Your task to perform on an android device: What's the news in Chile? Image 0: 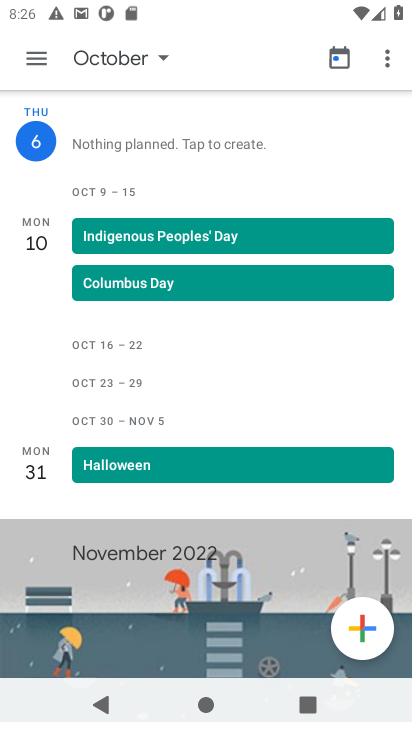
Step 0: press home button
Your task to perform on an android device: What's the news in Chile? Image 1: 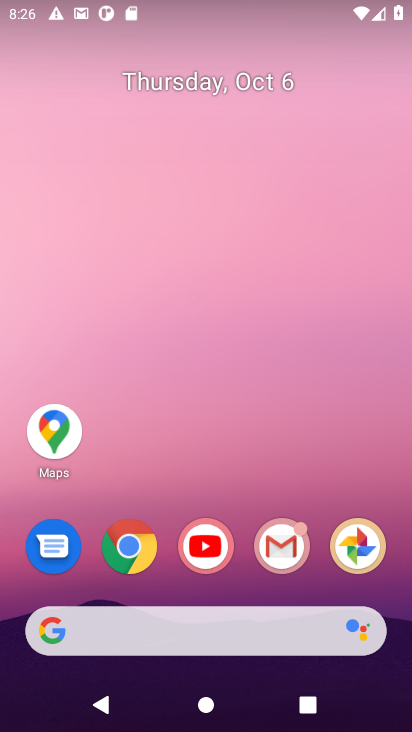
Step 1: click (123, 549)
Your task to perform on an android device: What's the news in Chile? Image 2: 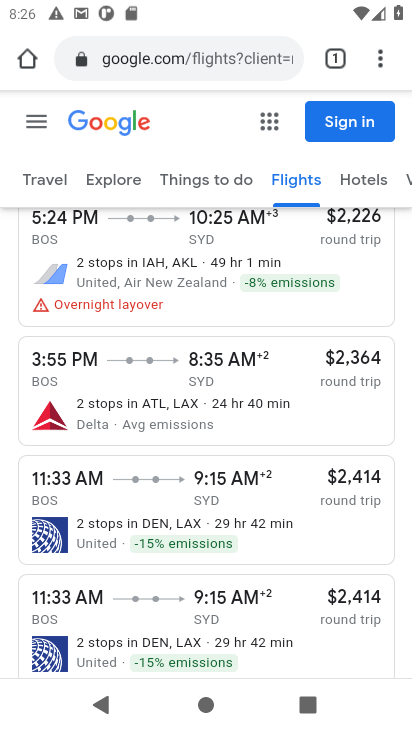
Step 2: click (187, 36)
Your task to perform on an android device: What's the news in Chile? Image 3: 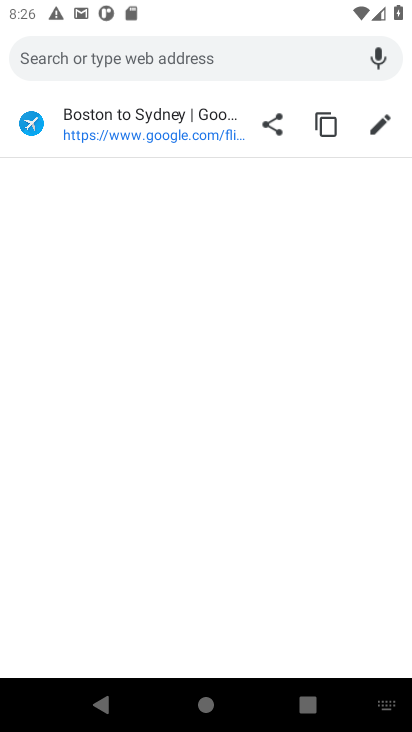
Step 3: type "What's the news in Chile?"
Your task to perform on an android device: What's the news in Chile? Image 4: 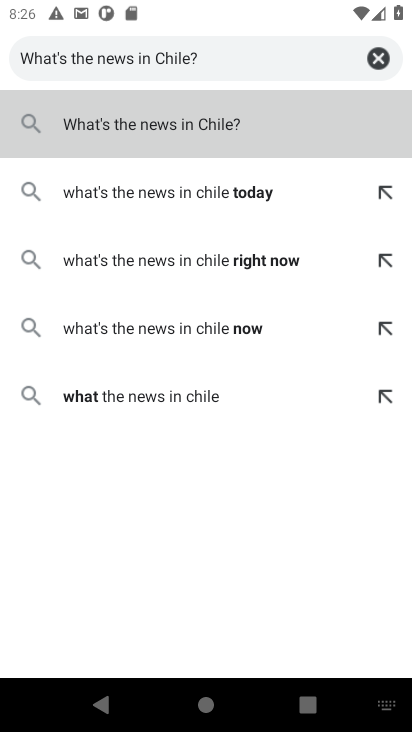
Step 4: click (119, 114)
Your task to perform on an android device: What's the news in Chile? Image 5: 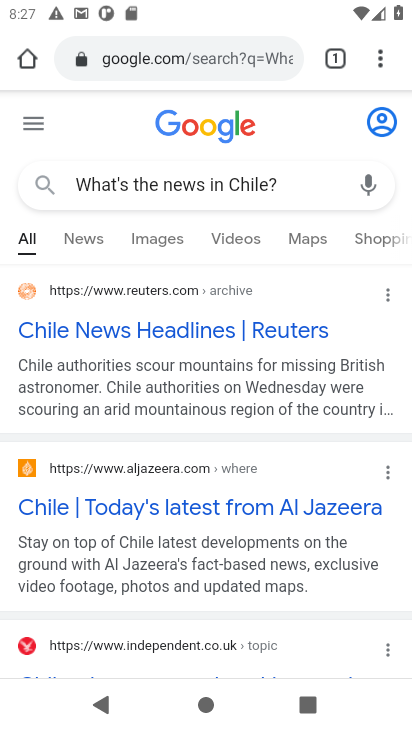
Step 5: click (79, 338)
Your task to perform on an android device: What's the news in Chile? Image 6: 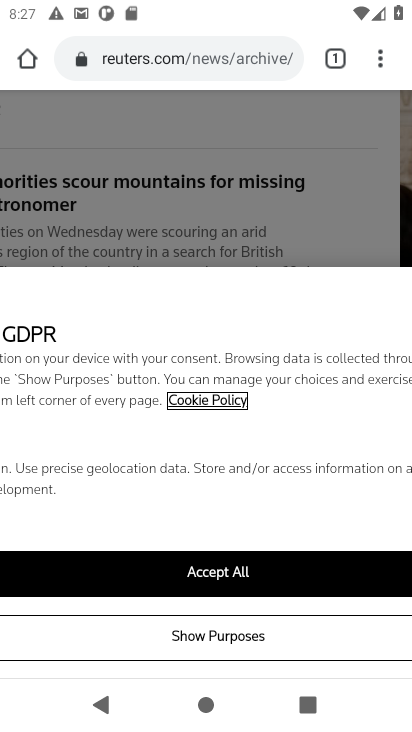
Step 6: click (207, 571)
Your task to perform on an android device: What's the news in Chile? Image 7: 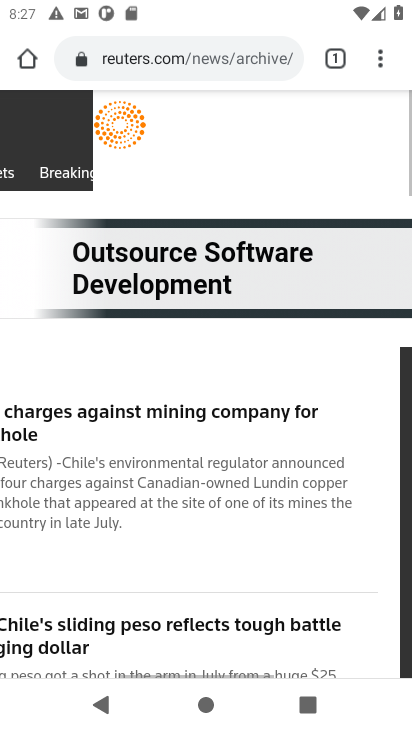
Step 7: drag from (94, 297) to (297, 300)
Your task to perform on an android device: What's the news in Chile? Image 8: 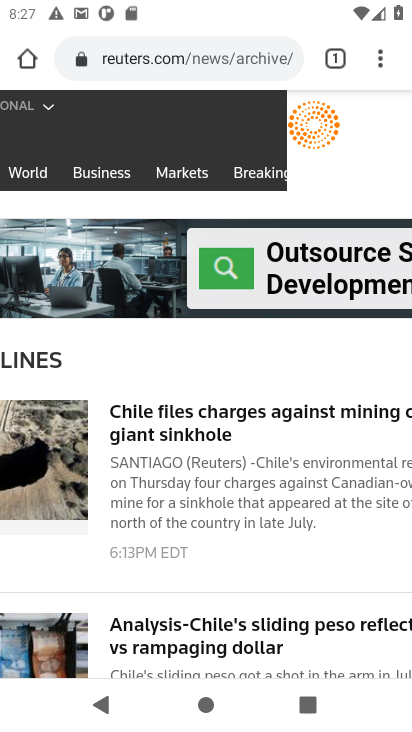
Step 8: click (376, 73)
Your task to perform on an android device: What's the news in Chile? Image 9: 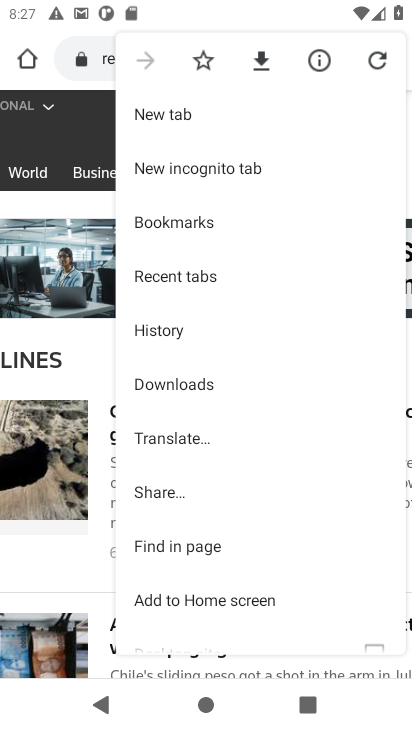
Step 9: drag from (285, 573) to (291, 391)
Your task to perform on an android device: What's the news in Chile? Image 10: 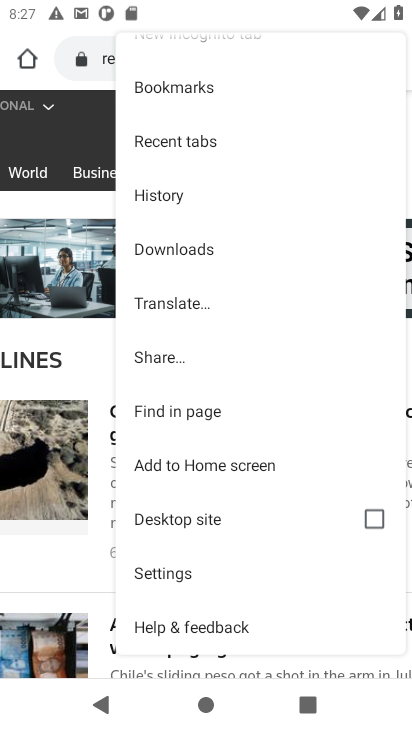
Step 10: click (367, 515)
Your task to perform on an android device: What's the news in Chile? Image 11: 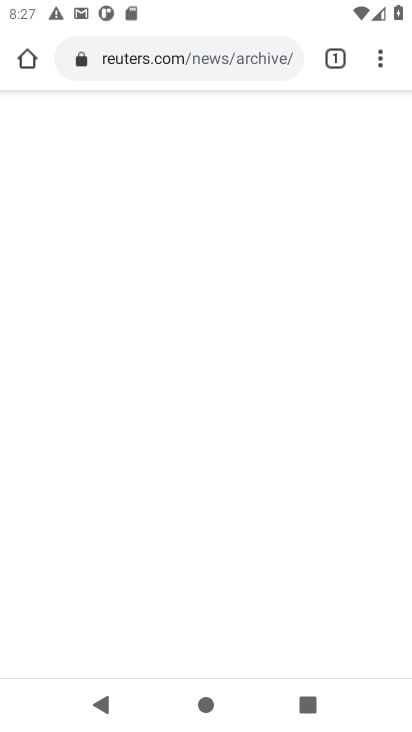
Step 11: drag from (216, 566) to (249, 368)
Your task to perform on an android device: What's the news in Chile? Image 12: 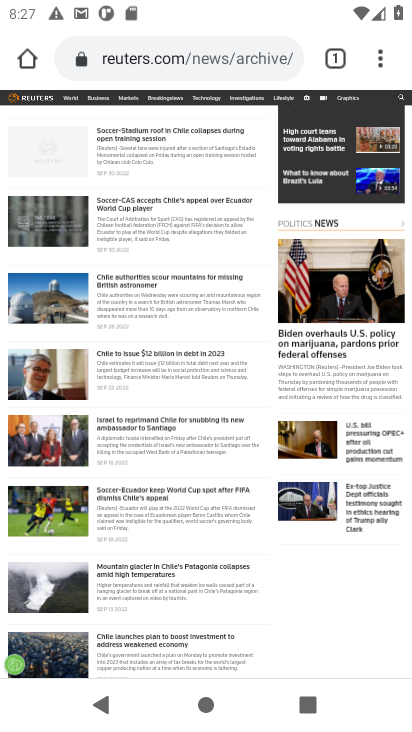
Step 12: drag from (158, 471) to (151, 537)
Your task to perform on an android device: What's the news in Chile? Image 13: 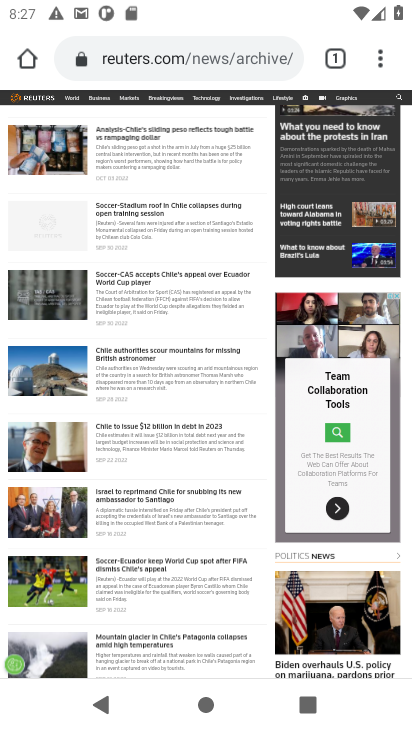
Step 13: drag from (126, 264) to (115, 499)
Your task to perform on an android device: What's the news in Chile? Image 14: 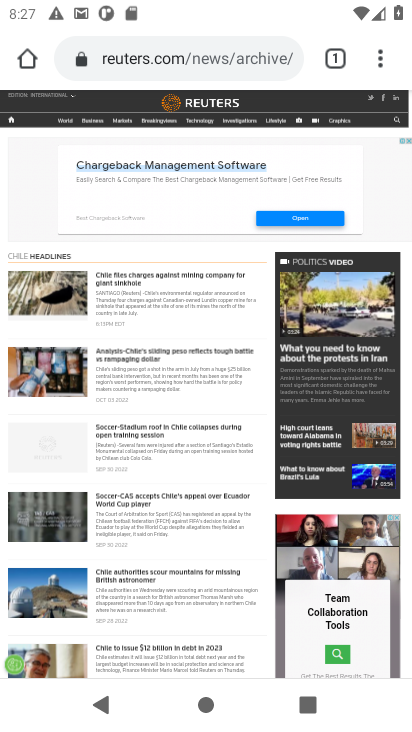
Step 14: click (120, 272)
Your task to perform on an android device: What's the news in Chile? Image 15: 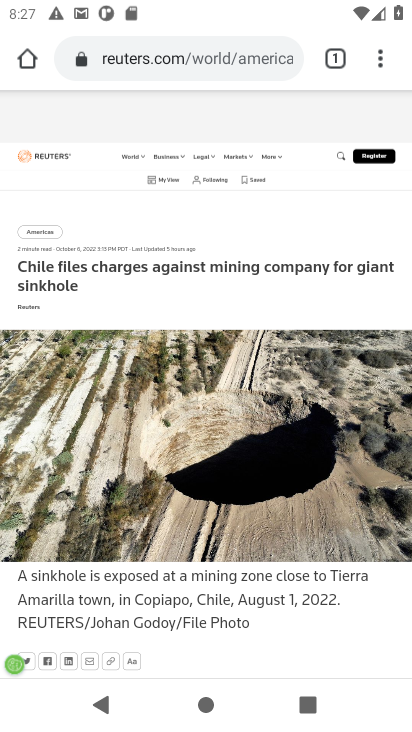
Step 15: task complete